Your task to perform on an android device: What's on my calendar tomorrow? Image 0: 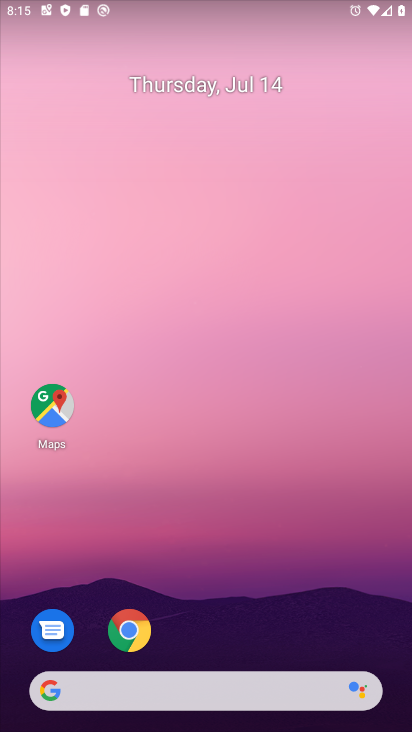
Step 0: drag from (213, 708) to (195, 135)
Your task to perform on an android device: What's on my calendar tomorrow? Image 1: 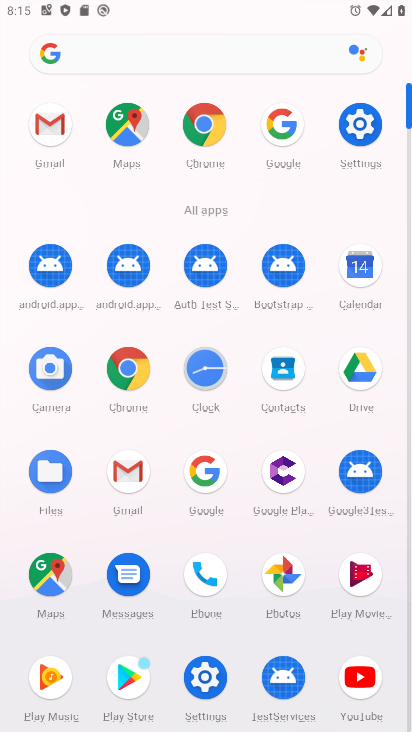
Step 1: click (361, 268)
Your task to perform on an android device: What's on my calendar tomorrow? Image 2: 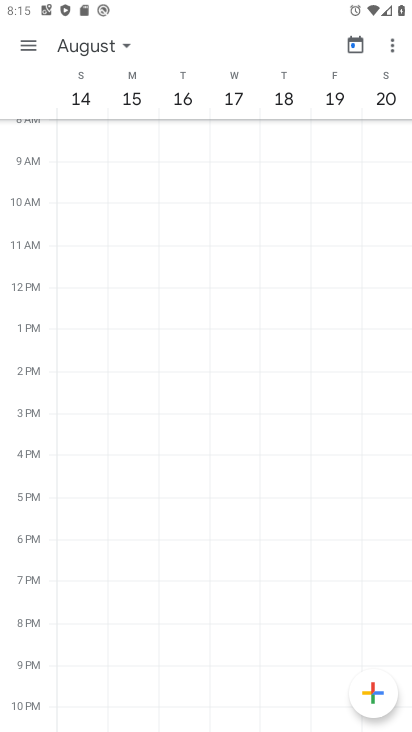
Step 2: click (133, 46)
Your task to perform on an android device: What's on my calendar tomorrow? Image 3: 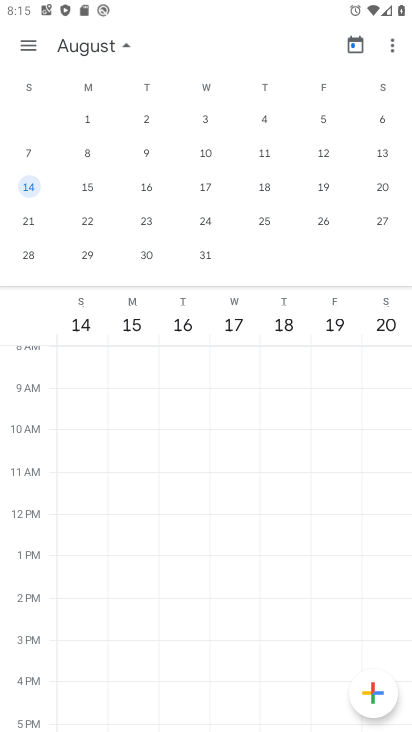
Step 3: drag from (79, 193) to (287, 197)
Your task to perform on an android device: What's on my calendar tomorrow? Image 4: 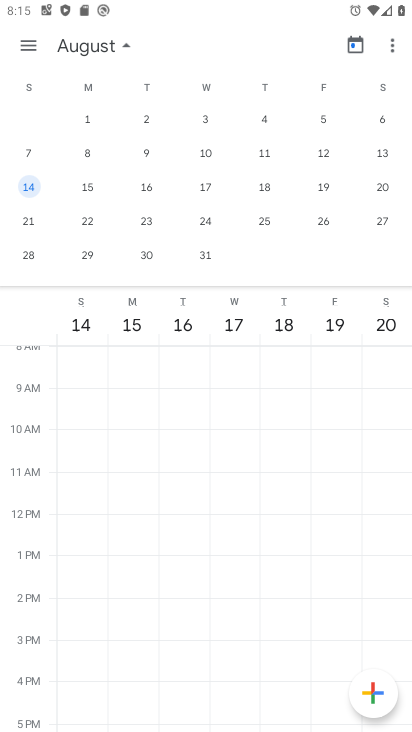
Step 4: drag from (69, 163) to (284, 122)
Your task to perform on an android device: What's on my calendar tomorrow? Image 5: 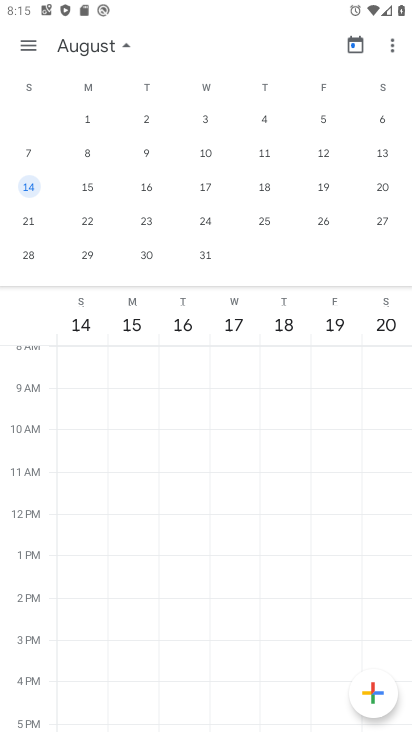
Step 5: drag from (64, 147) to (385, 156)
Your task to perform on an android device: What's on my calendar tomorrow? Image 6: 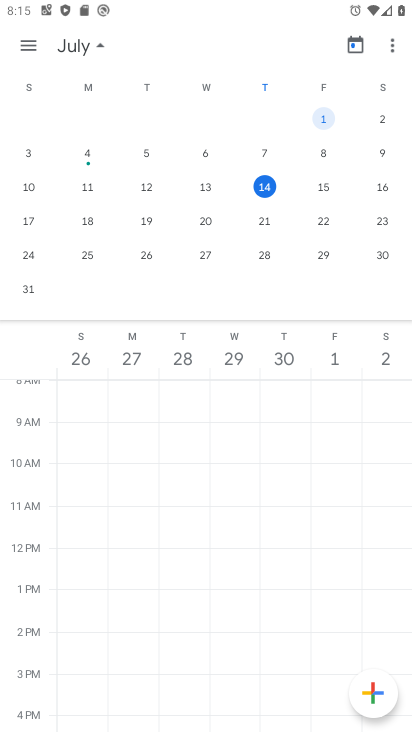
Step 6: click (324, 187)
Your task to perform on an android device: What's on my calendar tomorrow? Image 7: 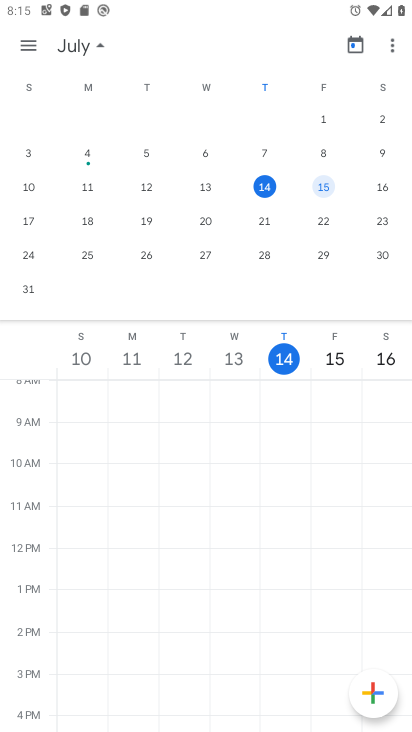
Step 7: click (334, 350)
Your task to perform on an android device: What's on my calendar tomorrow? Image 8: 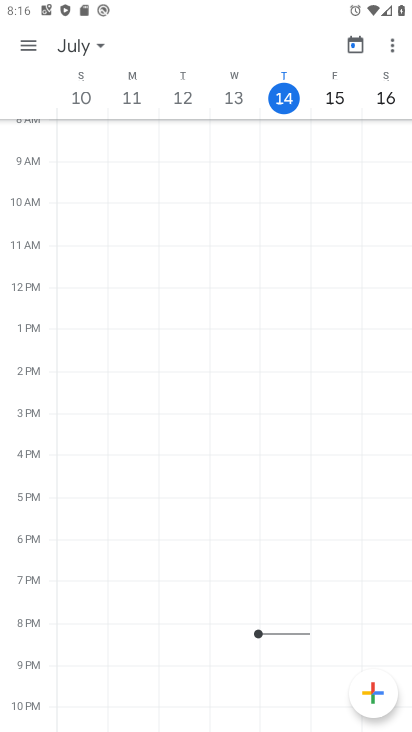
Step 8: click (334, 90)
Your task to perform on an android device: What's on my calendar tomorrow? Image 9: 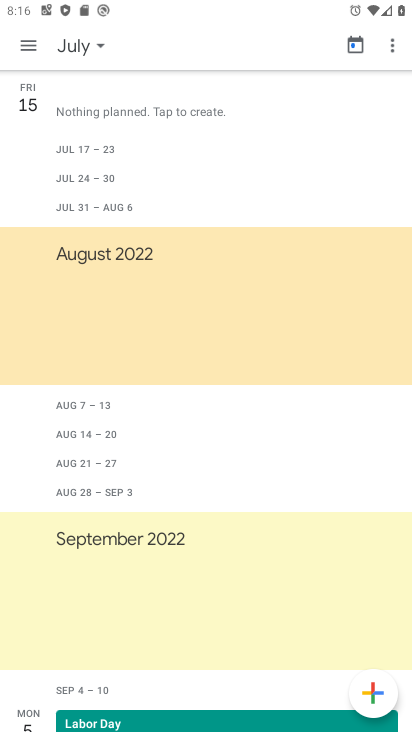
Step 9: task complete